Your task to perform on an android device: turn off notifications in google photos Image 0: 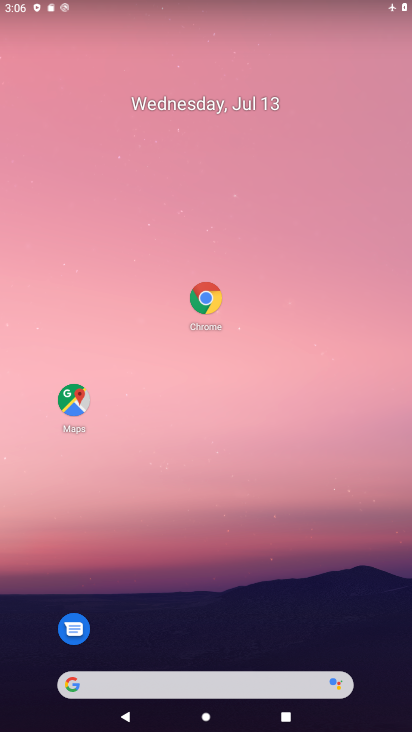
Step 0: drag from (187, 681) to (229, 345)
Your task to perform on an android device: turn off notifications in google photos Image 1: 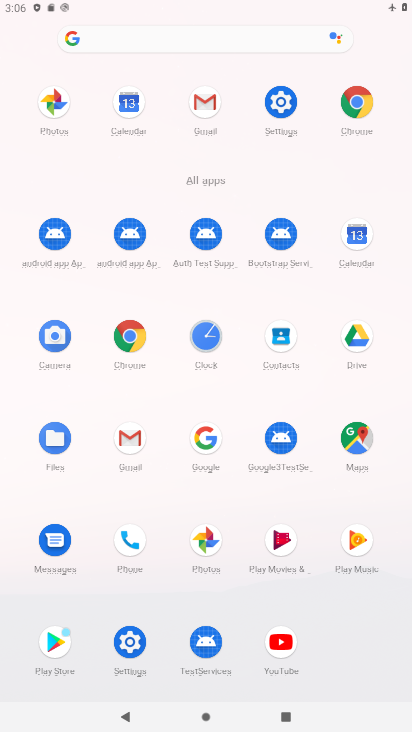
Step 1: click (211, 533)
Your task to perform on an android device: turn off notifications in google photos Image 2: 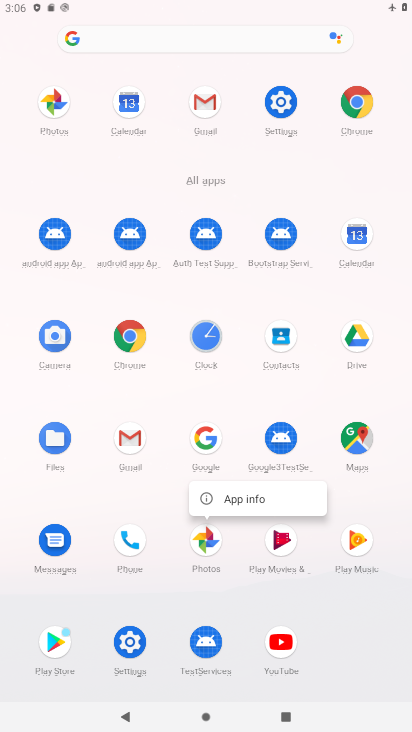
Step 2: click (200, 534)
Your task to perform on an android device: turn off notifications in google photos Image 3: 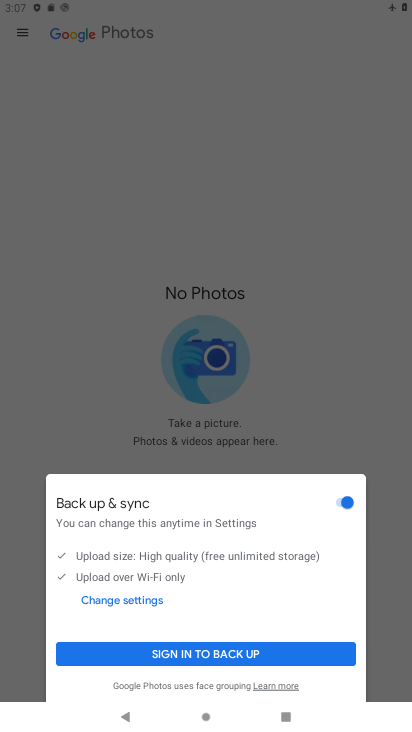
Step 3: click (337, 271)
Your task to perform on an android device: turn off notifications in google photos Image 4: 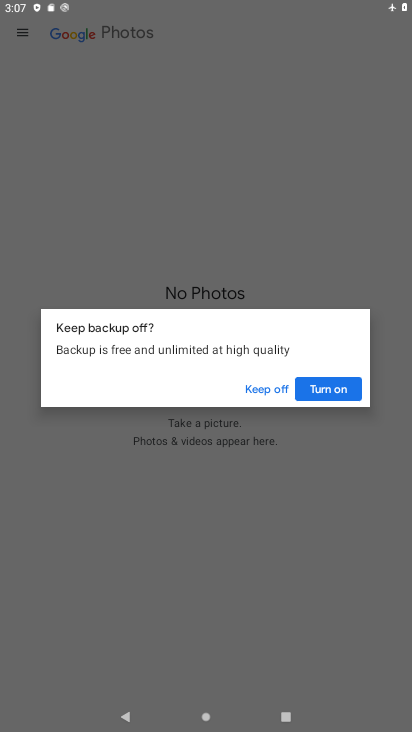
Step 4: click (349, 380)
Your task to perform on an android device: turn off notifications in google photos Image 5: 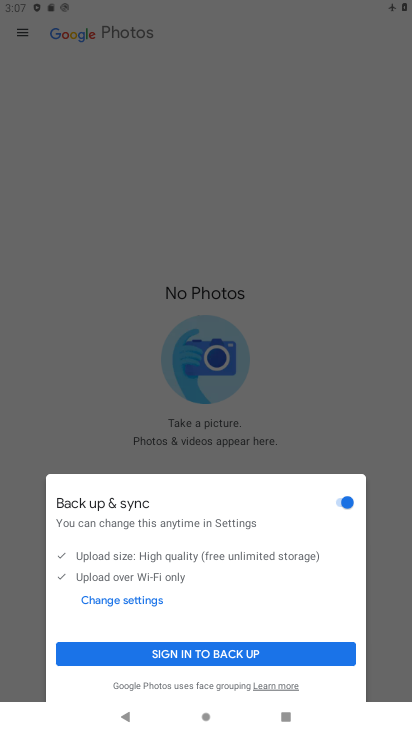
Step 5: click (224, 658)
Your task to perform on an android device: turn off notifications in google photos Image 6: 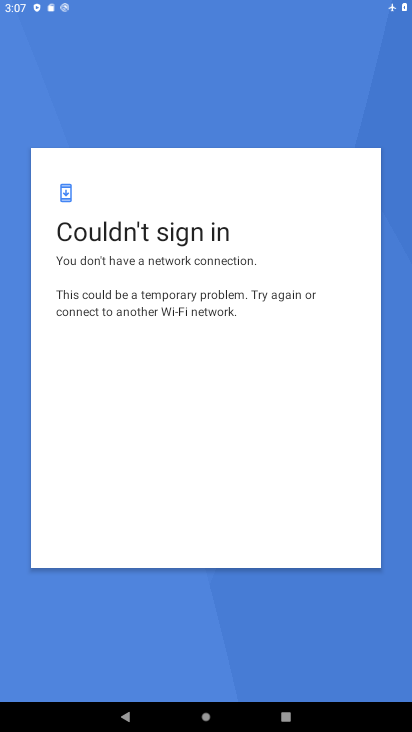
Step 6: task complete